Your task to perform on an android device: Go to Google Image 0: 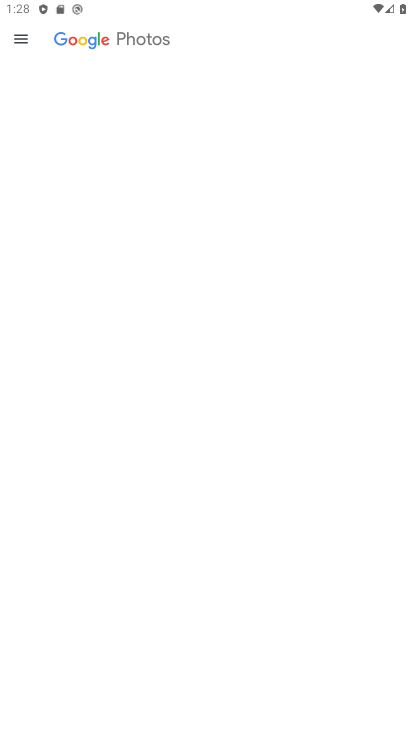
Step 0: drag from (237, 636) to (283, 320)
Your task to perform on an android device: Go to Google Image 1: 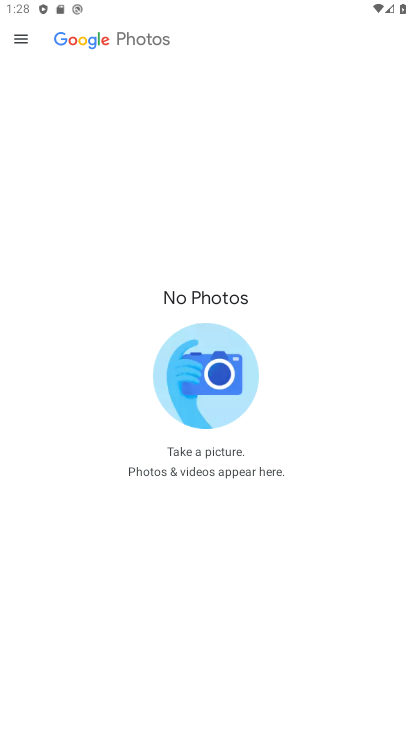
Step 1: press home button
Your task to perform on an android device: Go to Google Image 2: 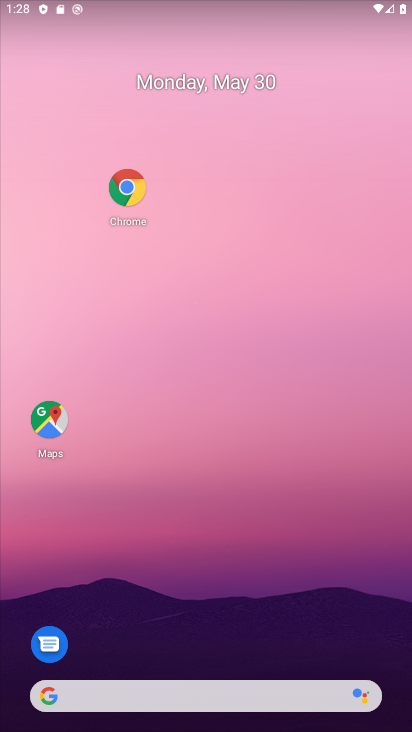
Step 2: click (172, 700)
Your task to perform on an android device: Go to Google Image 3: 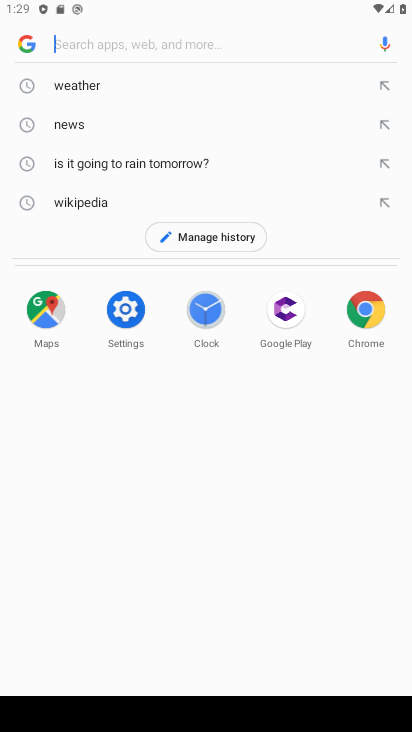
Step 3: task complete